Your task to perform on an android device: see tabs open on other devices in the chrome app Image 0: 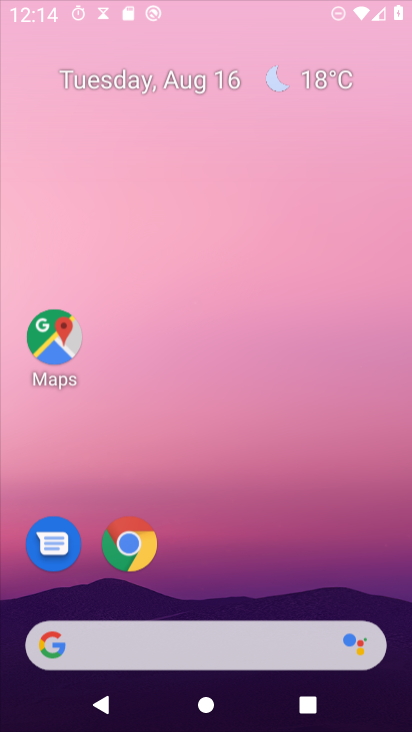
Step 0: drag from (230, 224) to (224, 89)
Your task to perform on an android device: see tabs open on other devices in the chrome app Image 1: 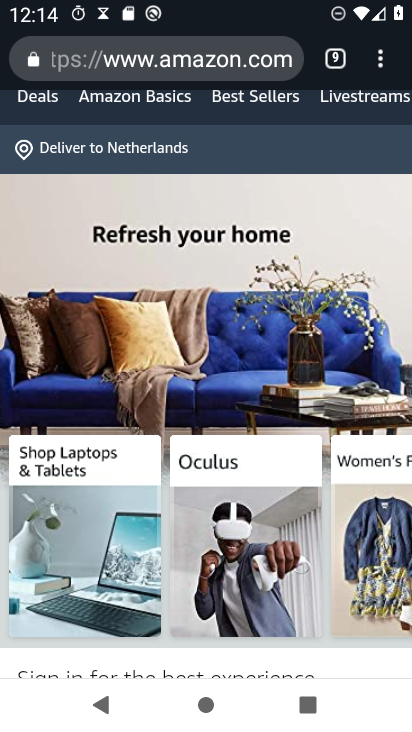
Step 1: click (377, 68)
Your task to perform on an android device: see tabs open on other devices in the chrome app Image 2: 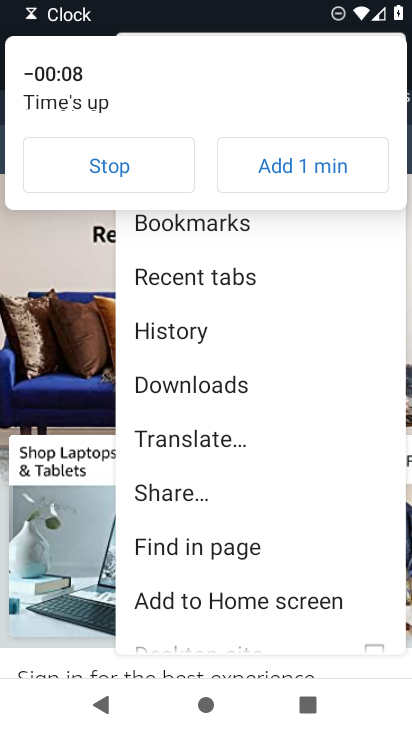
Step 2: click (175, 274)
Your task to perform on an android device: see tabs open on other devices in the chrome app Image 3: 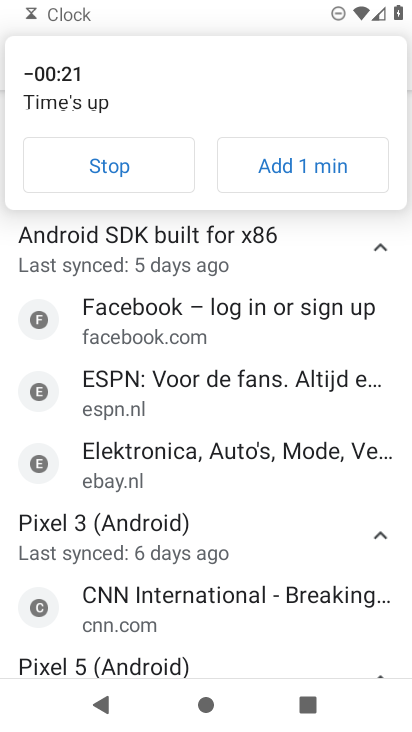
Step 3: task complete